Your task to perform on an android device: check battery use Image 0: 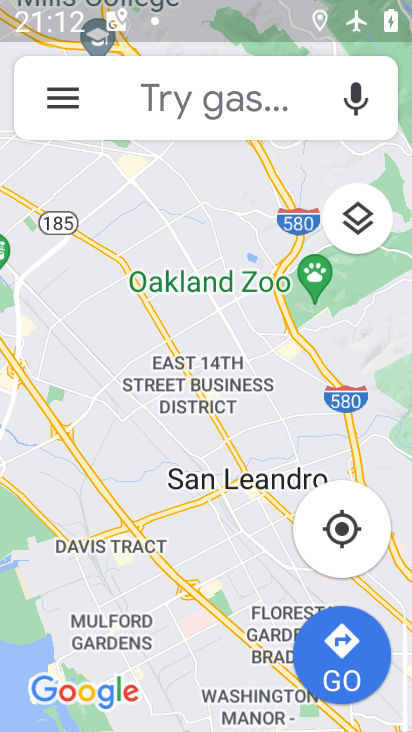
Step 0: press back button
Your task to perform on an android device: check battery use Image 1: 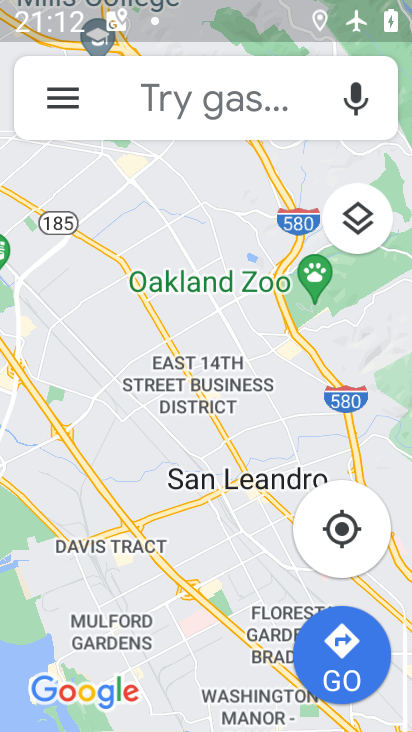
Step 1: press back button
Your task to perform on an android device: check battery use Image 2: 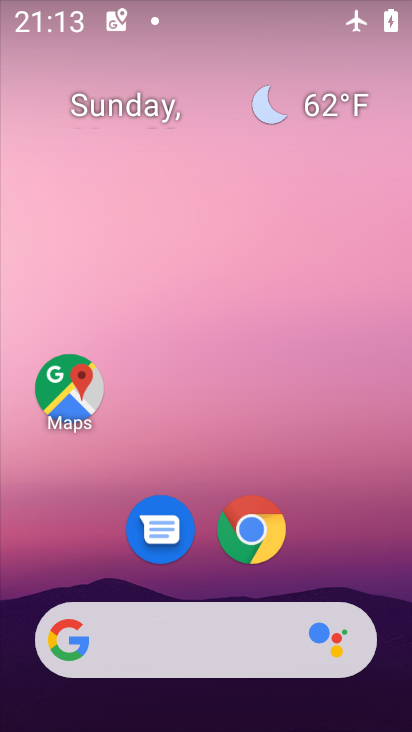
Step 2: drag from (281, 655) to (219, 69)
Your task to perform on an android device: check battery use Image 3: 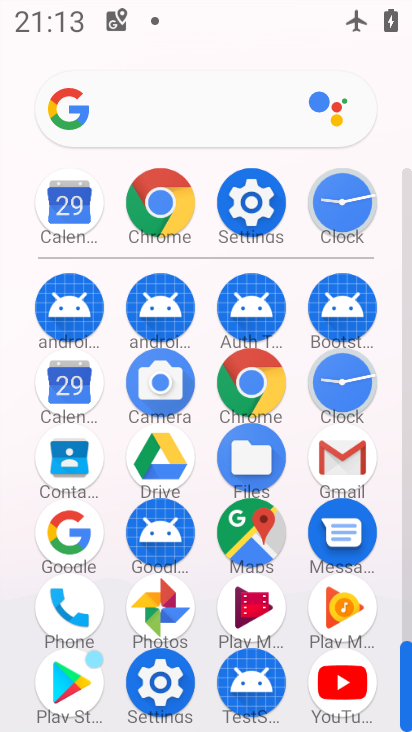
Step 3: click (153, 688)
Your task to perform on an android device: check battery use Image 4: 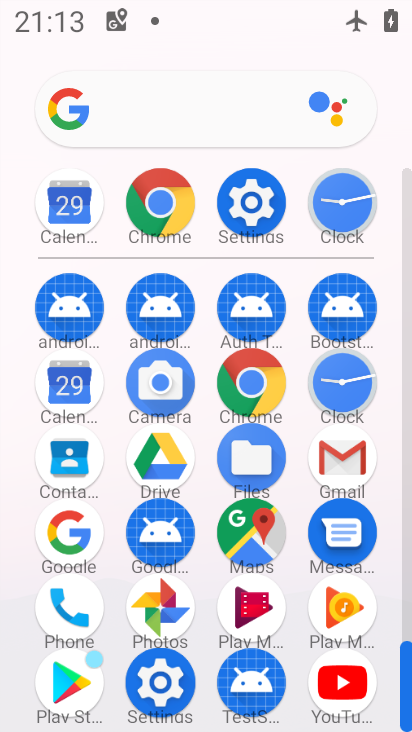
Step 4: click (153, 688)
Your task to perform on an android device: check battery use Image 5: 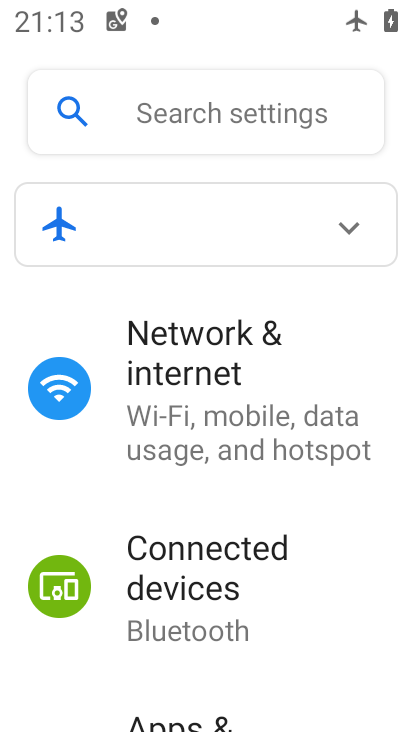
Step 5: drag from (204, 448) to (220, 258)
Your task to perform on an android device: check battery use Image 6: 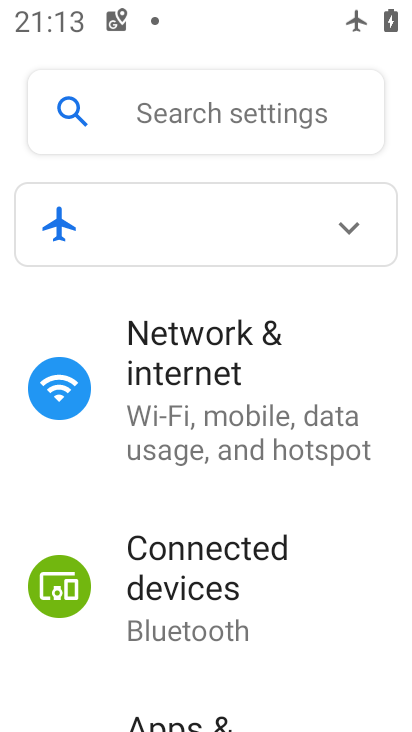
Step 6: click (202, 401)
Your task to perform on an android device: check battery use Image 7: 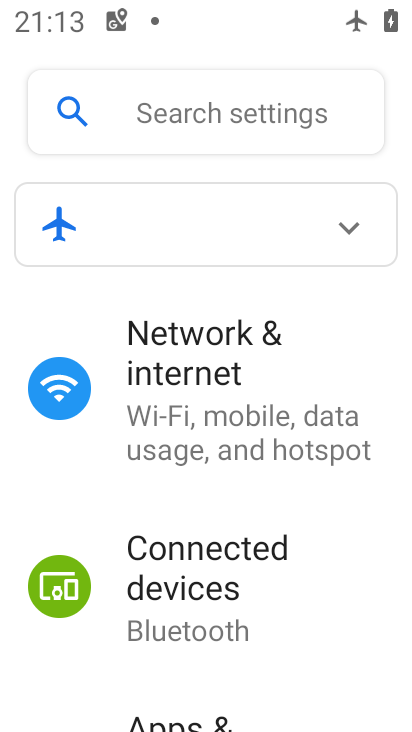
Step 7: click (202, 401)
Your task to perform on an android device: check battery use Image 8: 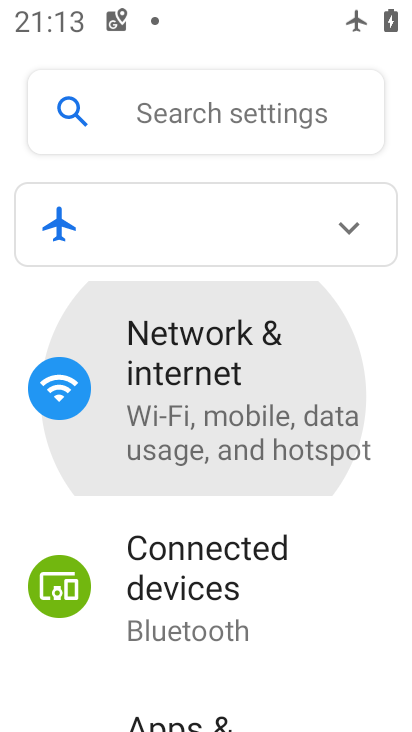
Step 8: click (202, 401)
Your task to perform on an android device: check battery use Image 9: 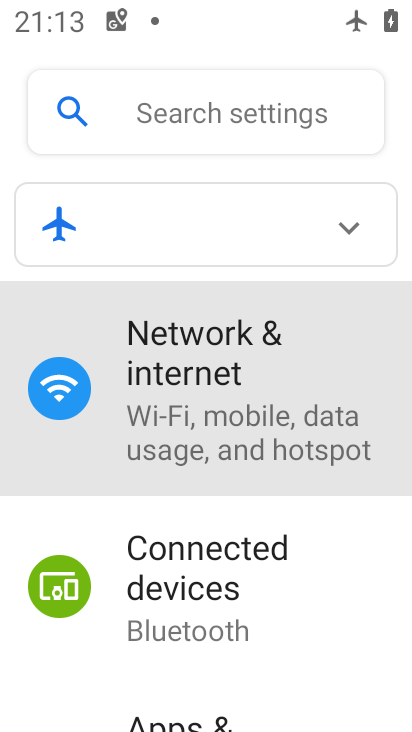
Step 9: click (202, 401)
Your task to perform on an android device: check battery use Image 10: 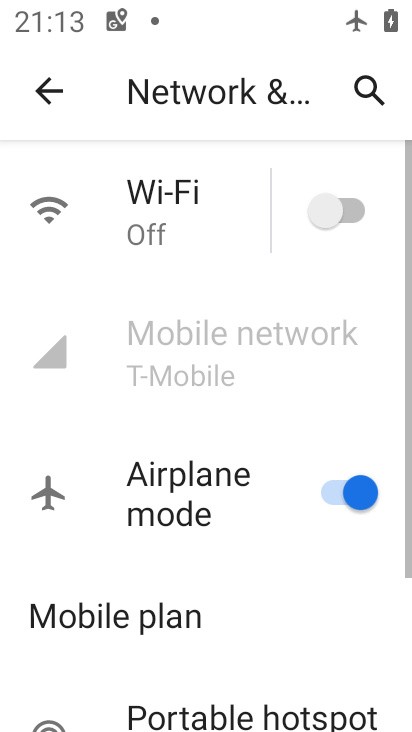
Step 10: click (202, 401)
Your task to perform on an android device: check battery use Image 11: 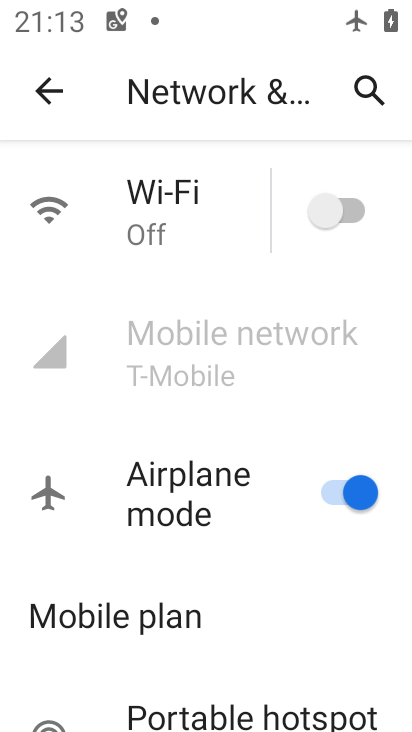
Step 11: drag from (211, 304) to (186, 146)
Your task to perform on an android device: check battery use Image 12: 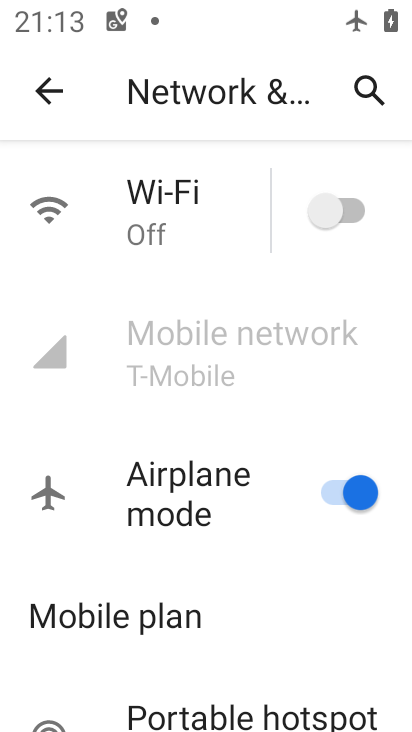
Step 12: click (105, 25)
Your task to perform on an android device: check battery use Image 13: 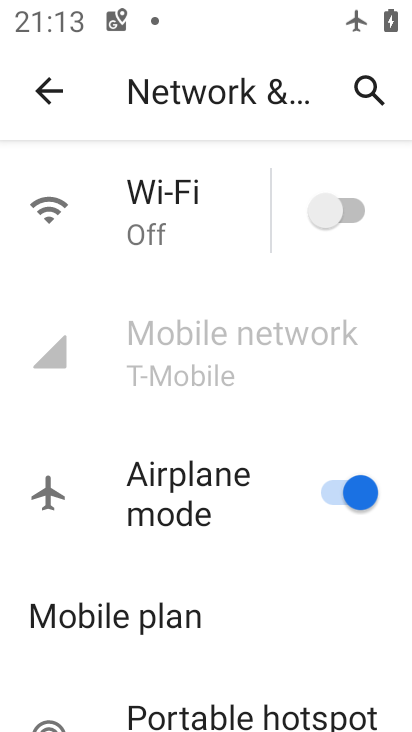
Step 13: click (194, 180)
Your task to perform on an android device: check battery use Image 14: 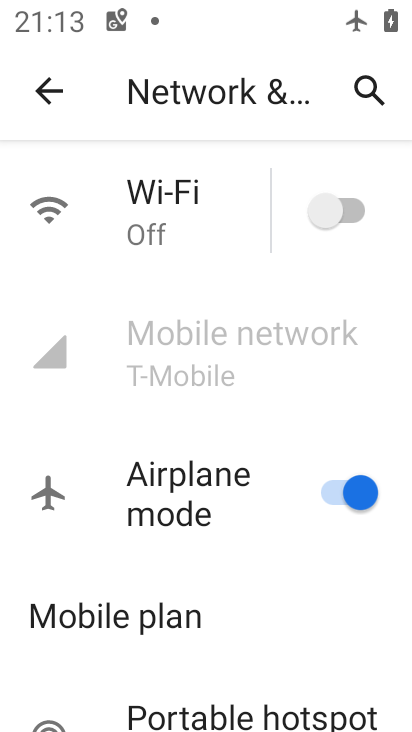
Step 14: task complete